Your task to perform on an android device: Play the last video I watched on Youtube Image 0: 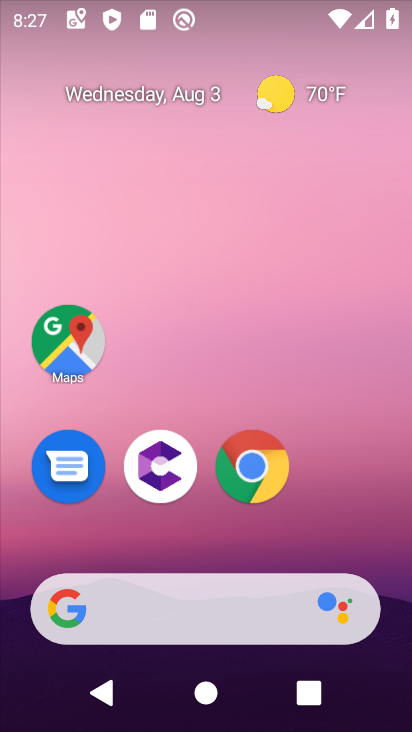
Step 0: drag from (331, 446) to (397, 98)
Your task to perform on an android device: Play the last video I watched on Youtube Image 1: 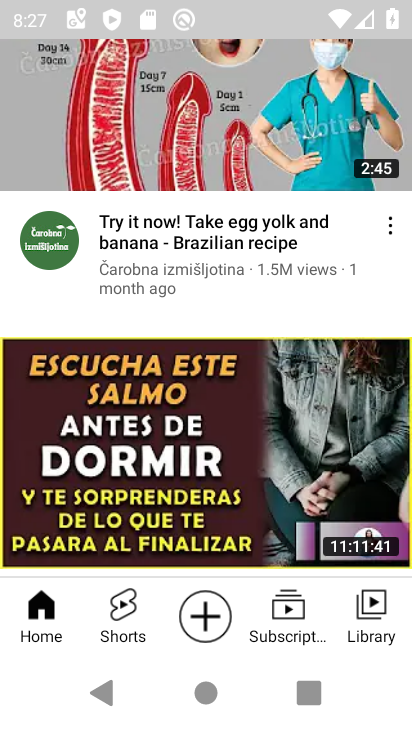
Step 1: click (374, 613)
Your task to perform on an android device: Play the last video I watched on Youtube Image 2: 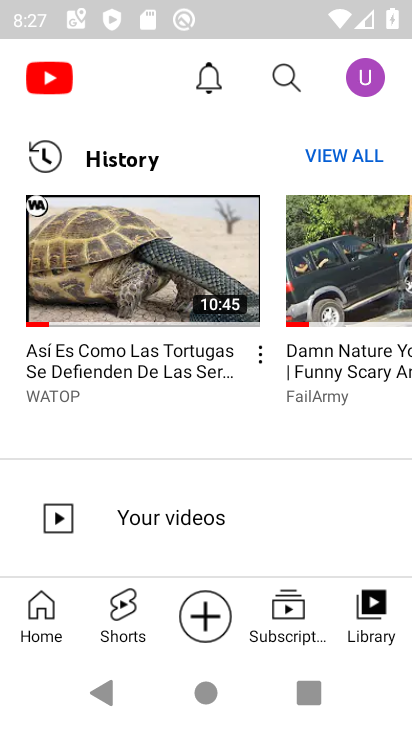
Step 2: click (134, 283)
Your task to perform on an android device: Play the last video I watched on Youtube Image 3: 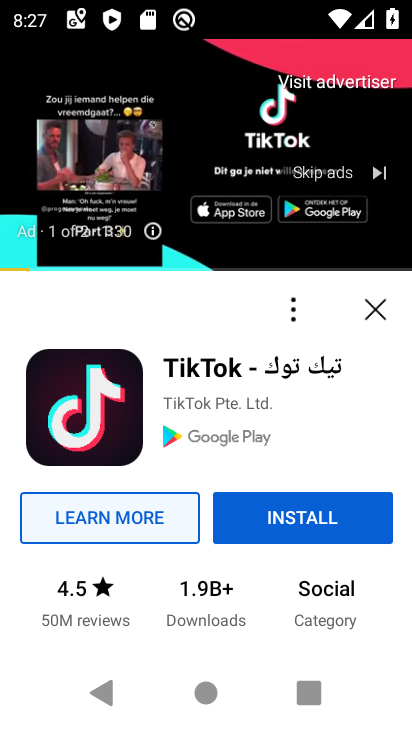
Step 3: click (367, 172)
Your task to perform on an android device: Play the last video I watched on Youtube Image 4: 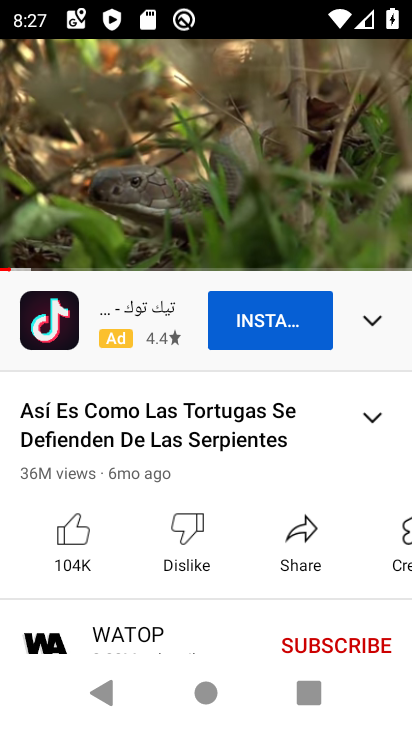
Step 4: task complete